Your task to perform on an android device: toggle priority inbox in the gmail app Image 0: 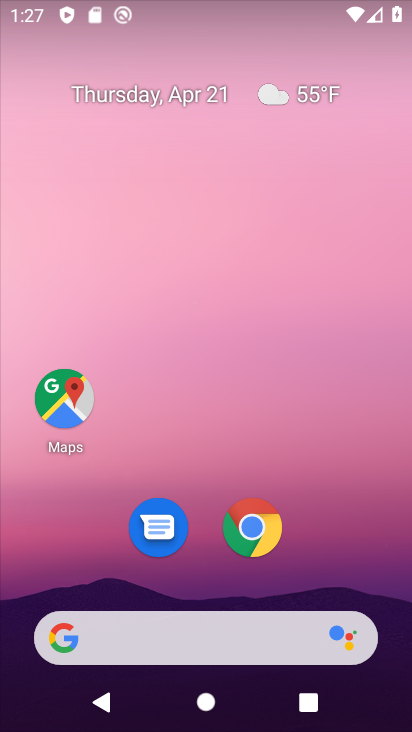
Step 0: drag from (325, 557) to (368, 100)
Your task to perform on an android device: toggle priority inbox in the gmail app Image 1: 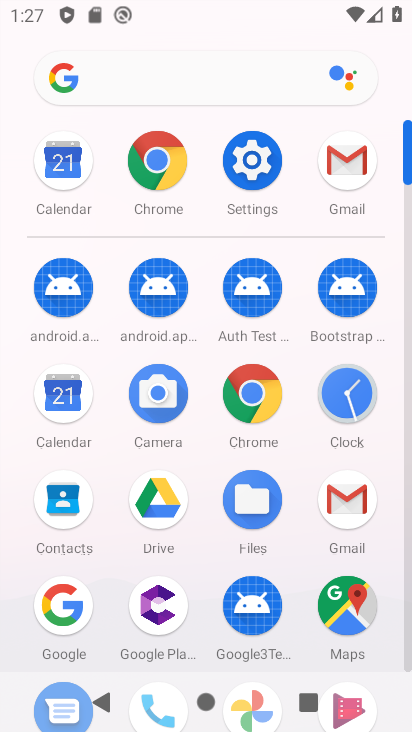
Step 1: click (354, 500)
Your task to perform on an android device: toggle priority inbox in the gmail app Image 2: 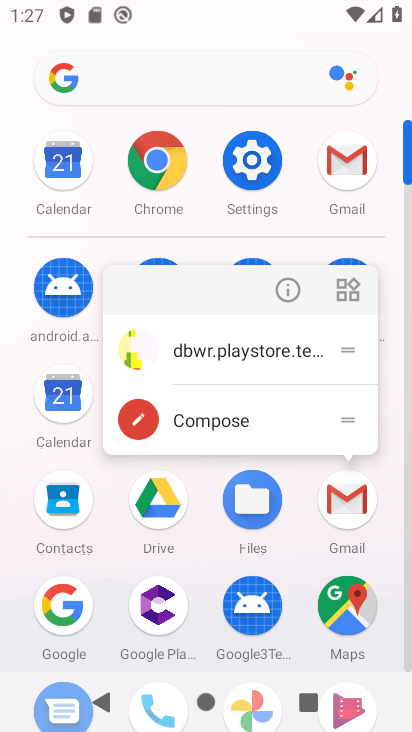
Step 2: click (354, 500)
Your task to perform on an android device: toggle priority inbox in the gmail app Image 3: 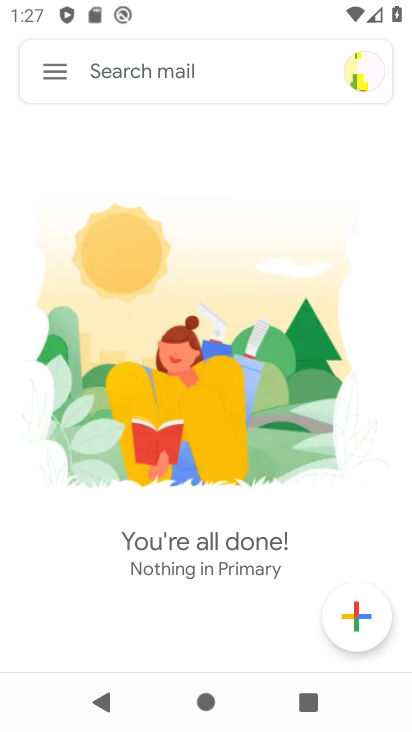
Step 3: click (55, 66)
Your task to perform on an android device: toggle priority inbox in the gmail app Image 4: 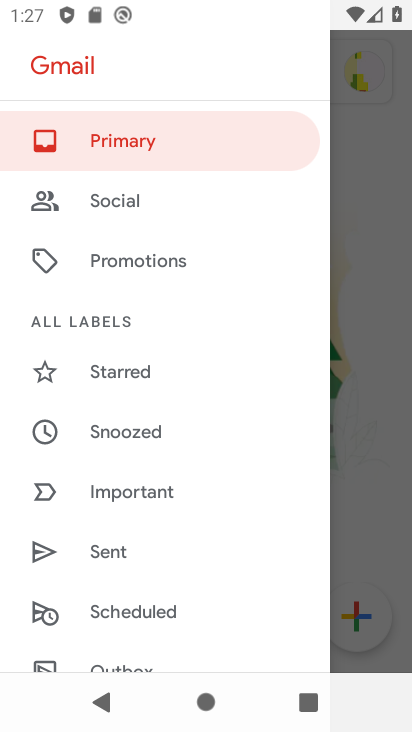
Step 4: drag from (246, 568) to (274, 320)
Your task to perform on an android device: toggle priority inbox in the gmail app Image 5: 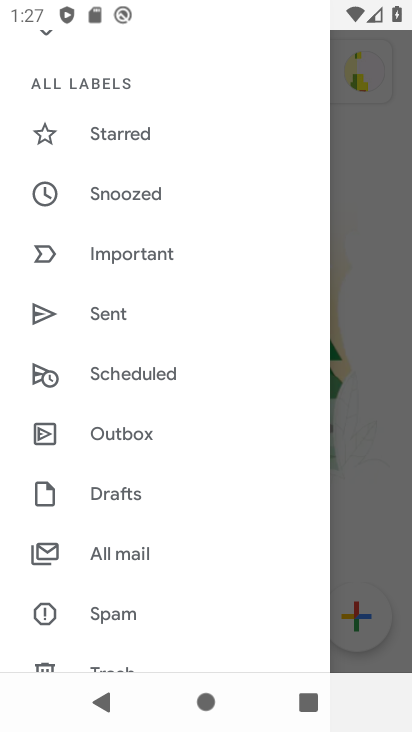
Step 5: drag from (267, 590) to (267, 346)
Your task to perform on an android device: toggle priority inbox in the gmail app Image 6: 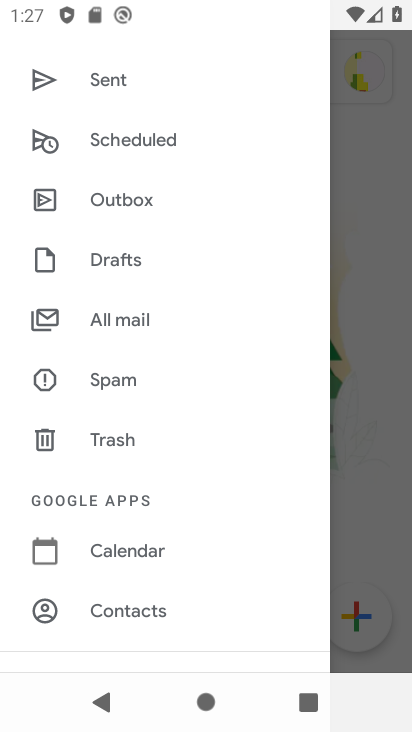
Step 6: drag from (219, 574) to (255, 362)
Your task to perform on an android device: toggle priority inbox in the gmail app Image 7: 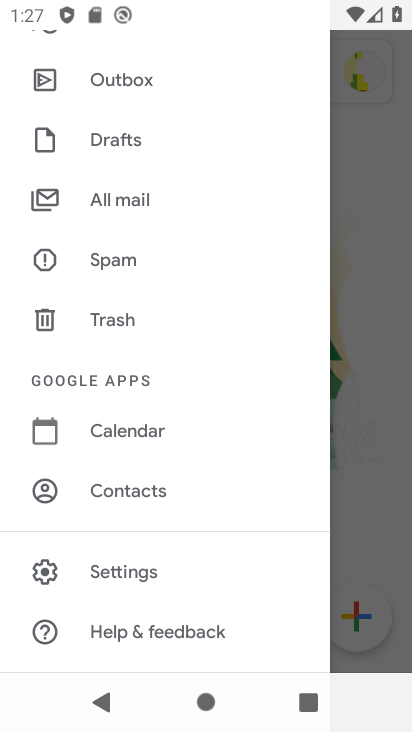
Step 7: drag from (253, 589) to (277, 414)
Your task to perform on an android device: toggle priority inbox in the gmail app Image 8: 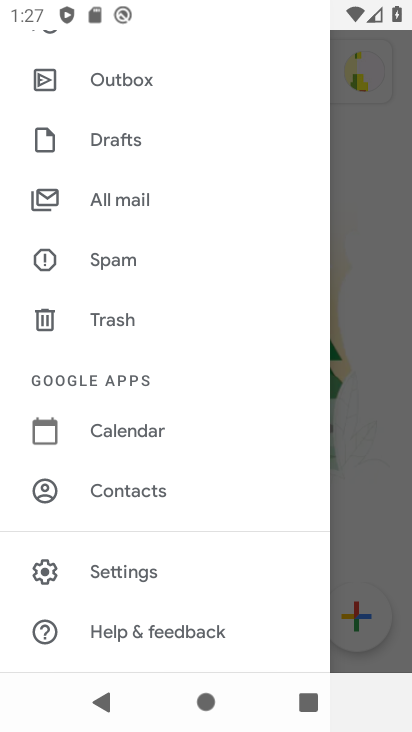
Step 8: click (133, 571)
Your task to perform on an android device: toggle priority inbox in the gmail app Image 9: 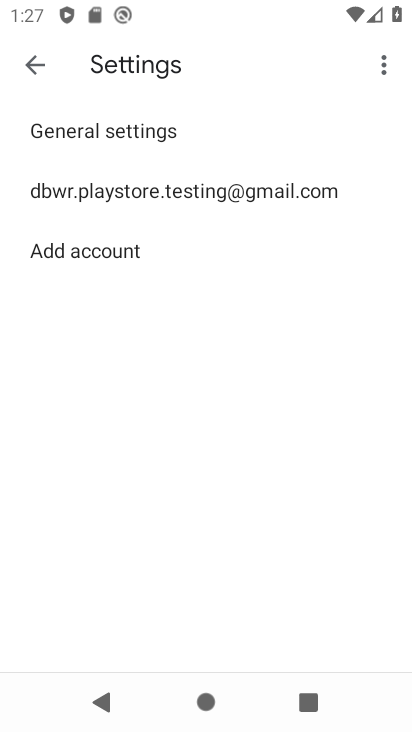
Step 9: click (245, 180)
Your task to perform on an android device: toggle priority inbox in the gmail app Image 10: 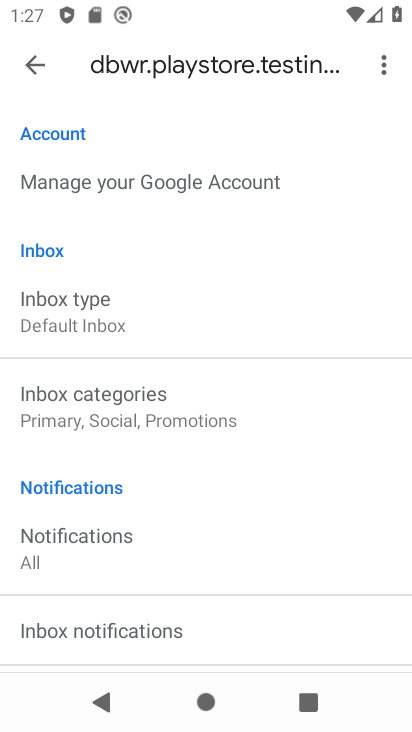
Step 10: drag from (279, 520) to (304, 348)
Your task to perform on an android device: toggle priority inbox in the gmail app Image 11: 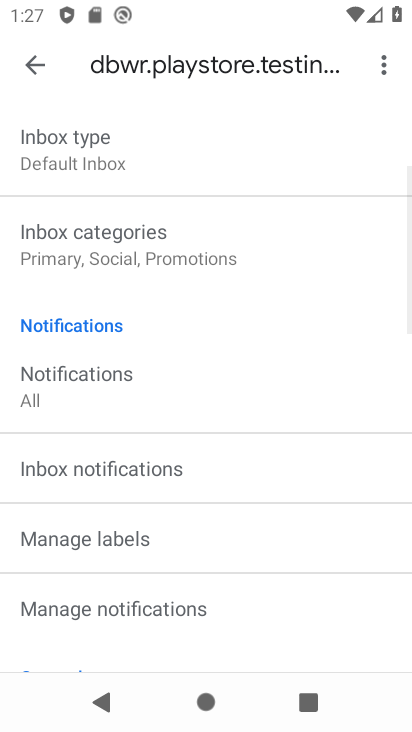
Step 11: drag from (290, 577) to (294, 403)
Your task to perform on an android device: toggle priority inbox in the gmail app Image 12: 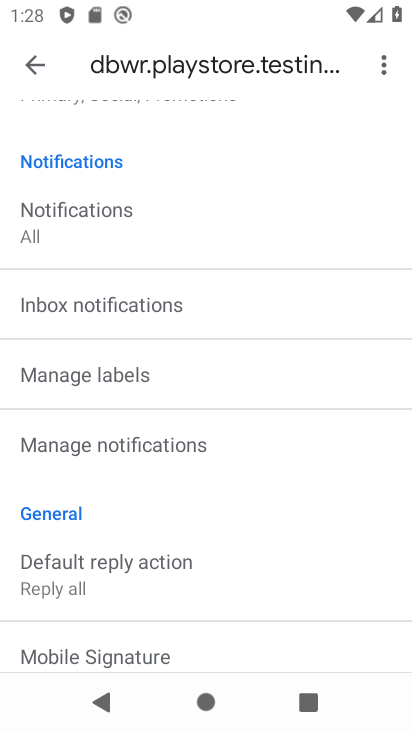
Step 12: drag from (291, 568) to (302, 405)
Your task to perform on an android device: toggle priority inbox in the gmail app Image 13: 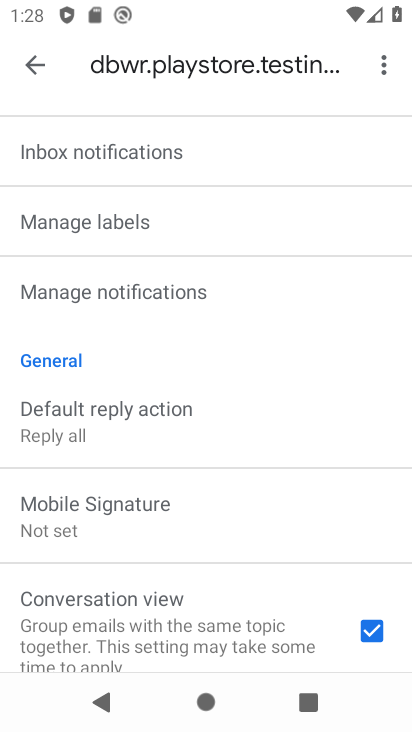
Step 13: drag from (283, 558) to (297, 422)
Your task to perform on an android device: toggle priority inbox in the gmail app Image 14: 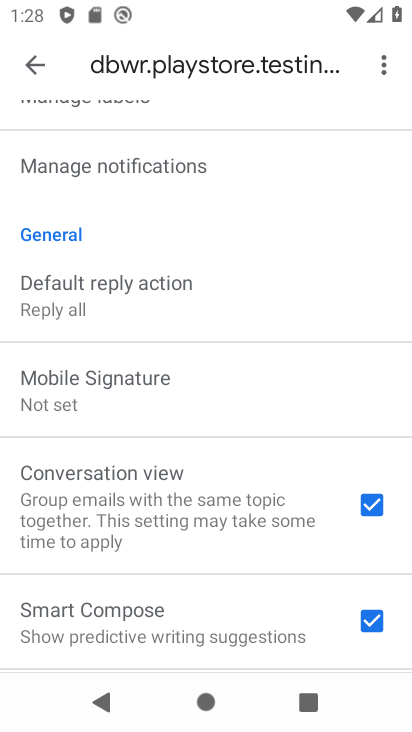
Step 14: drag from (298, 571) to (296, 379)
Your task to perform on an android device: toggle priority inbox in the gmail app Image 15: 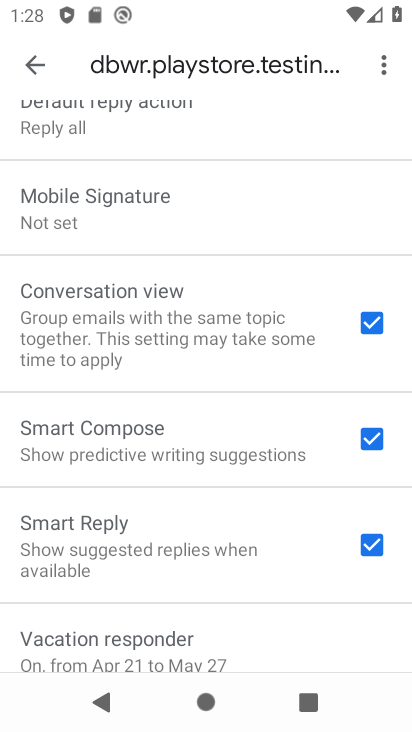
Step 15: drag from (283, 565) to (307, 408)
Your task to perform on an android device: toggle priority inbox in the gmail app Image 16: 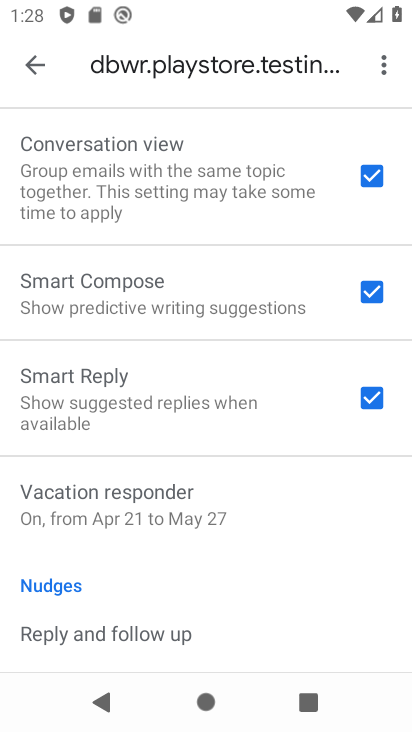
Step 16: drag from (288, 583) to (297, 428)
Your task to perform on an android device: toggle priority inbox in the gmail app Image 17: 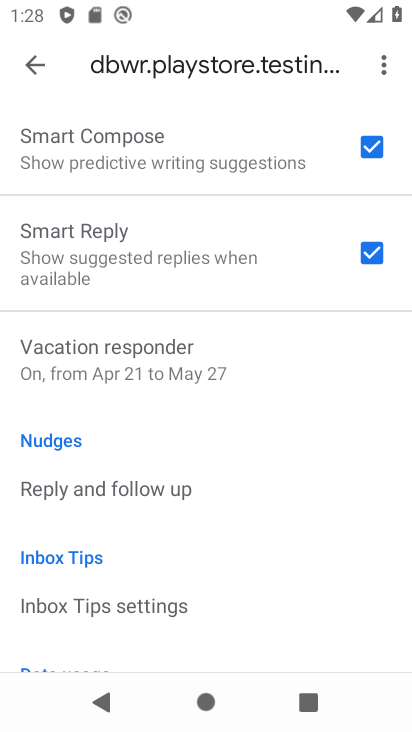
Step 17: drag from (294, 590) to (301, 415)
Your task to perform on an android device: toggle priority inbox in the gmail app Image 18: 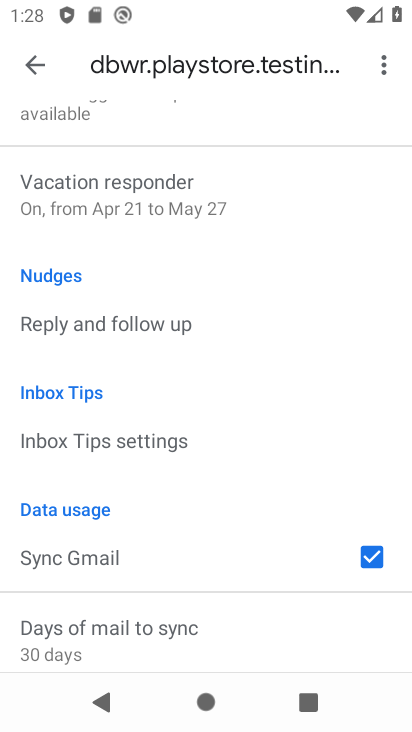
Step 18: drag from (272, 618) to (288, 431)
Your task to perform on an android device: toggle priority inbox in the gmail app Image 19: 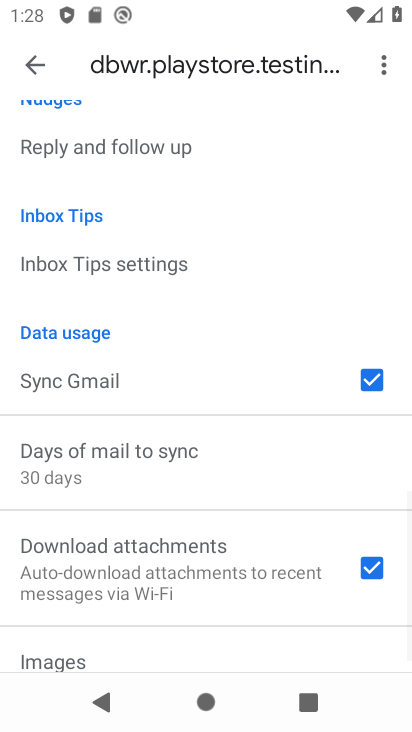
Step 19: drag from (277, 231) to (250, 472)
Your task to perform on an android device: toggle priority inbox in the gmail app Image 20: 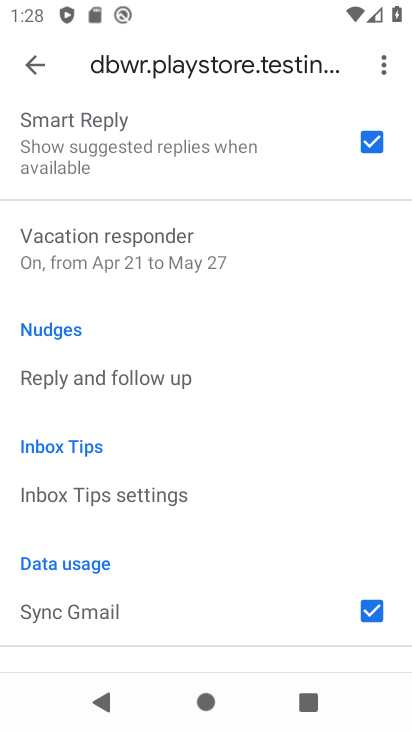
Step 20: drag from (276, 244) to (290, 453)
Your task to perform on an android device: toggle priority inbox in the gmail app Image 21: 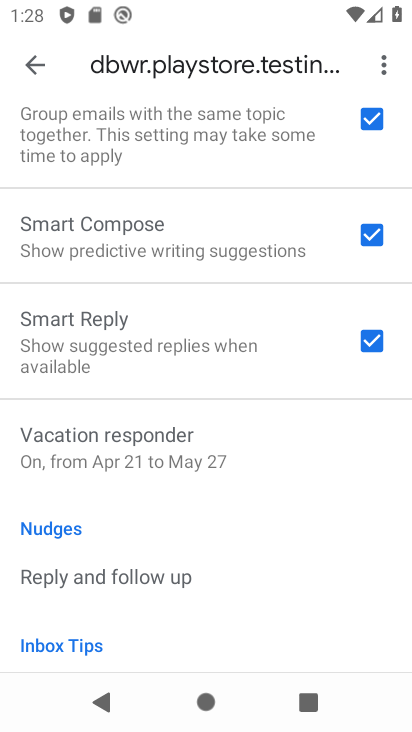
Step 21: drag from (308, 168) to (325, 470)
Your task to perform on an android device: toggle priority inbox in the gmail app Image 22: 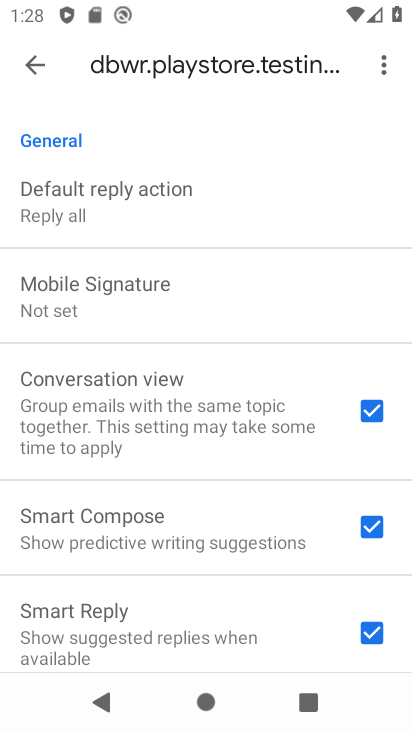
Step 22: drag from (287, 189) to (285, 431)
Your task to perform on an android device: toggle priority inbox in the gmail app Image 23: 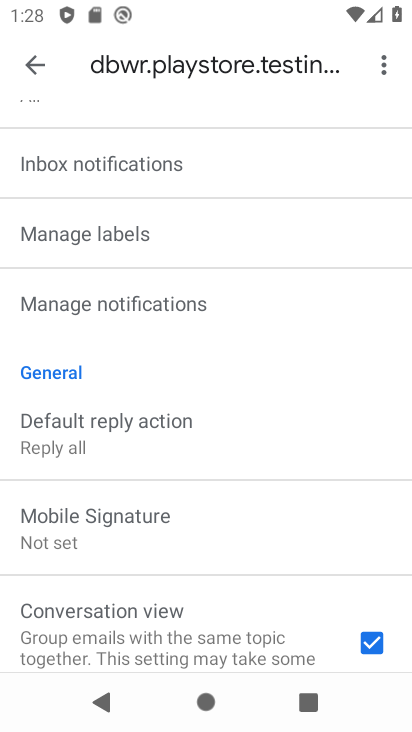
Step 23: drag from (284, 174) to (278, 468)
Your task to perform on an android device: toggle priority inbox in the gmail app Image 24: 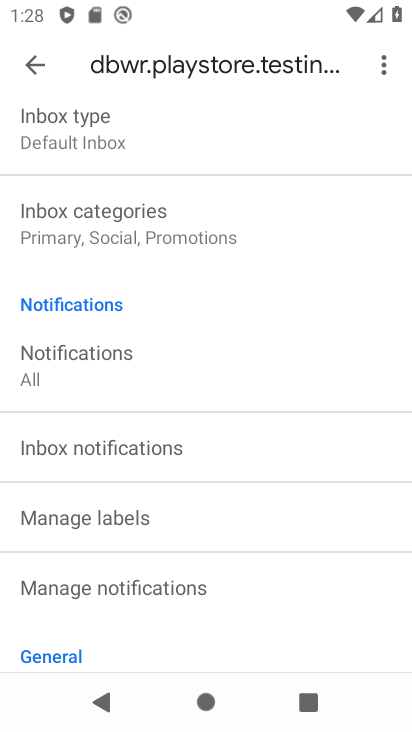
Step 24: drag from (298, 185) to (293, 395)
Your task to perform on an android device: toggle priority inbox in the gmail app Image 25: 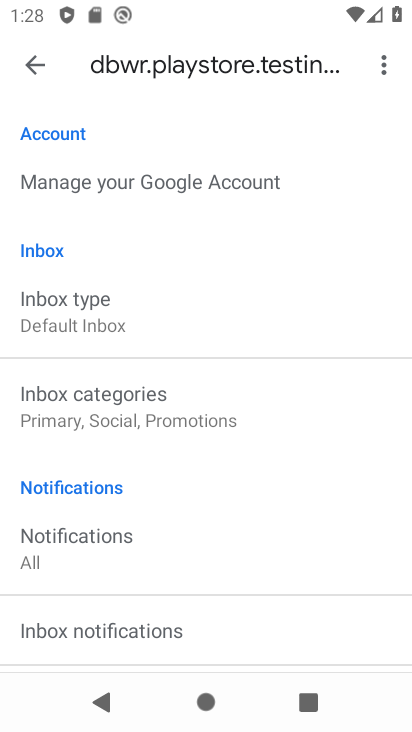
Step 25: click (90, 307)
Your task to perform on an android device: toggle priority inbox in the gmail app Image 26: 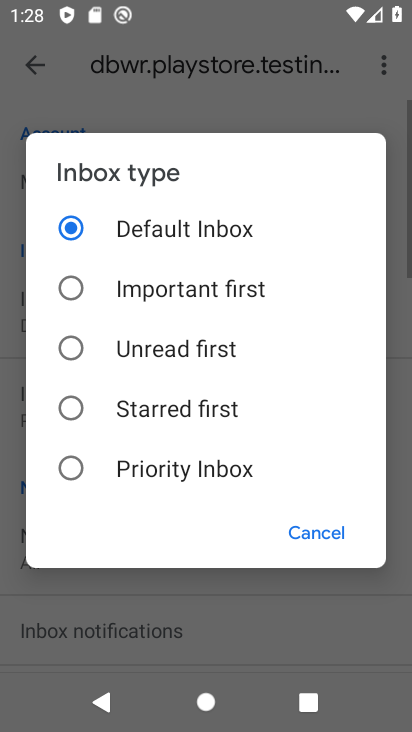
Step 26: click (220, 473)
Your task to perform on an android device: toggle priority inbox in the gmail app Image 27: 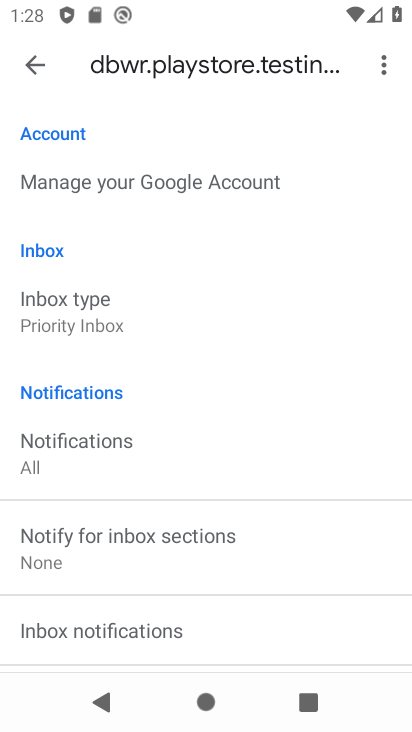
Step 27: task complete